Your task to perform on an android device: Open the clock Image 0: 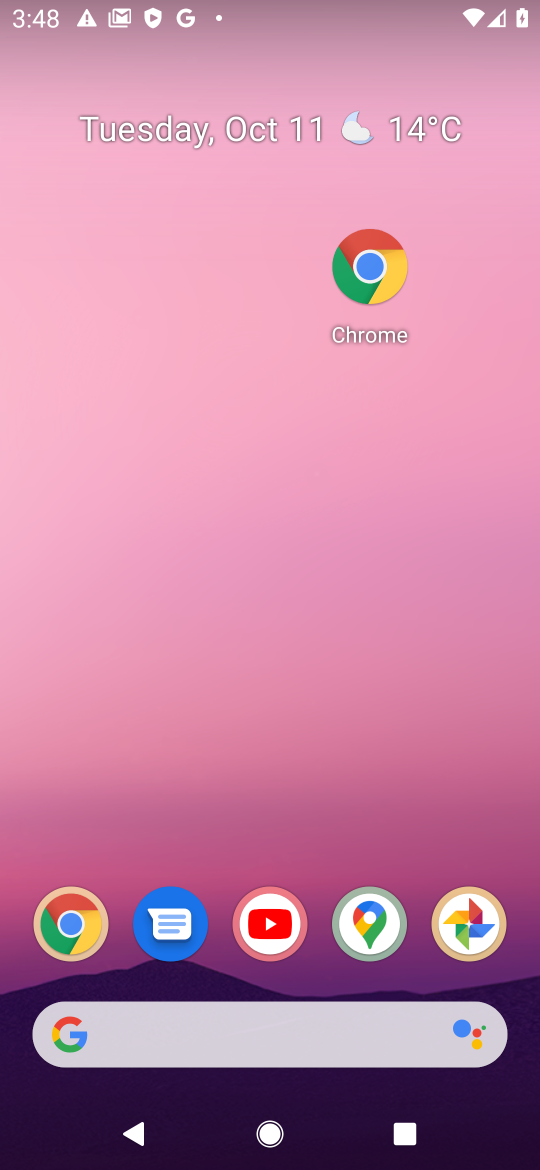
Step 0: drag from (313, 852) to (414, 592)
Your task to perform on an android device: Open the clock Image 1: 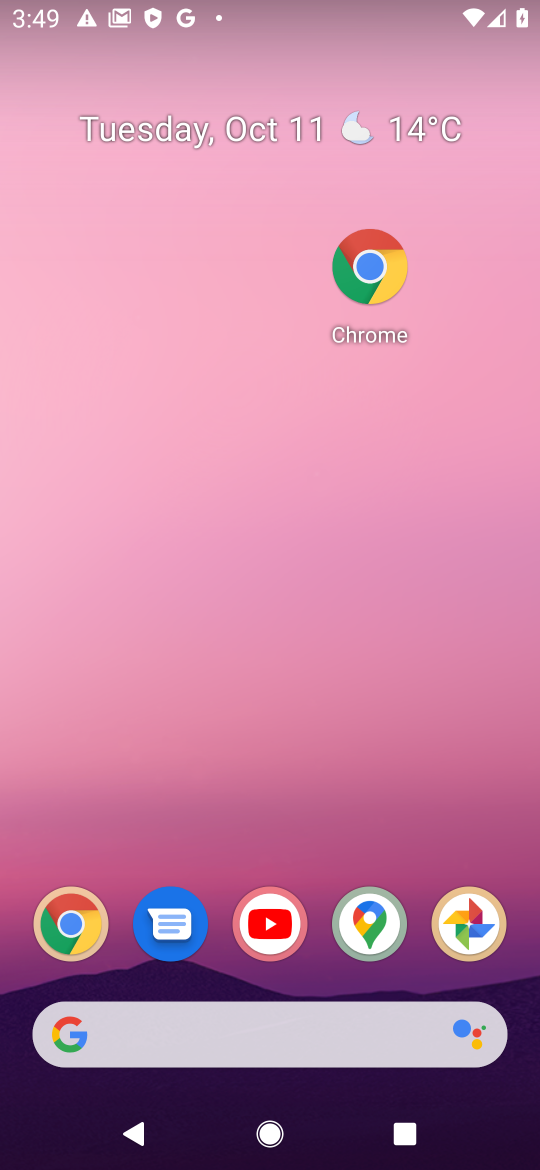
Step 1: drag from (417, 836) to (217, 0)
Your task to perform on an android device: Open the clock Image 2: 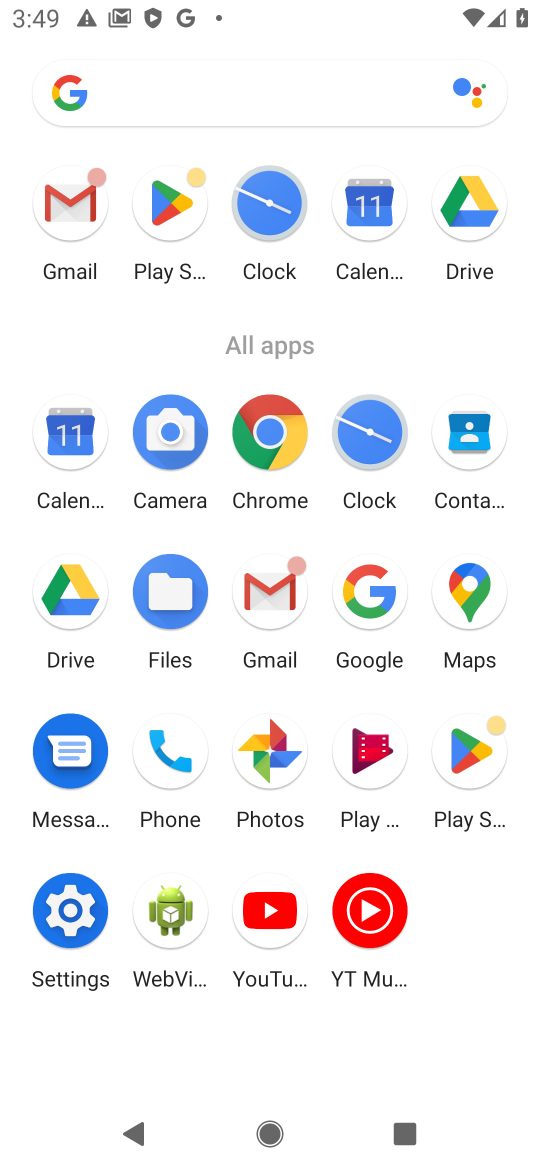
Step 2: click (282, 227)
Your task to perform on an android device: Open the clock Image 3: 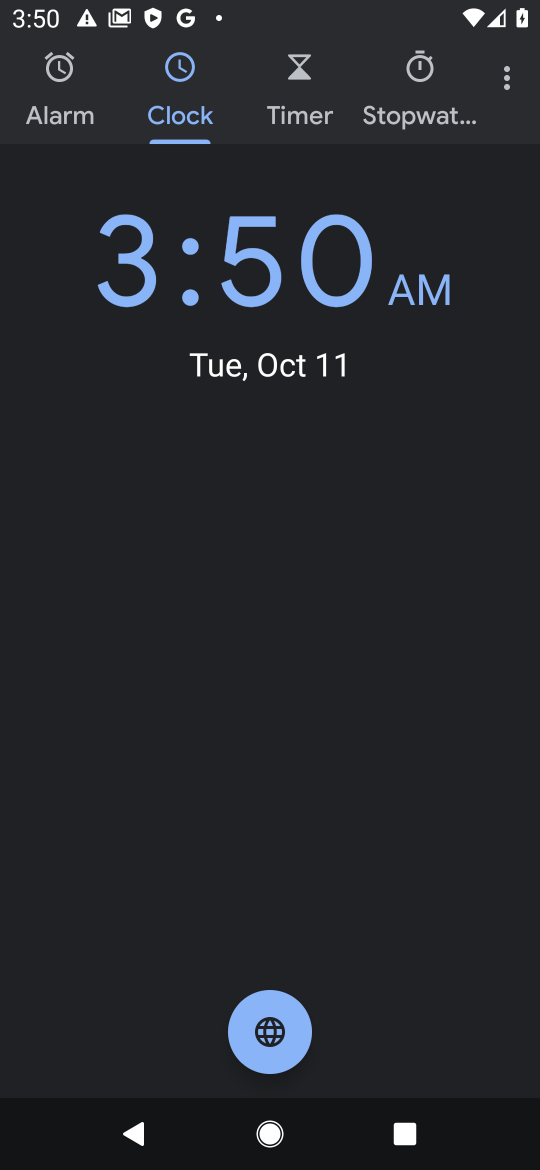
Step 3: task complete